Your task to perform on an android device: all mails in gmail Image 0: 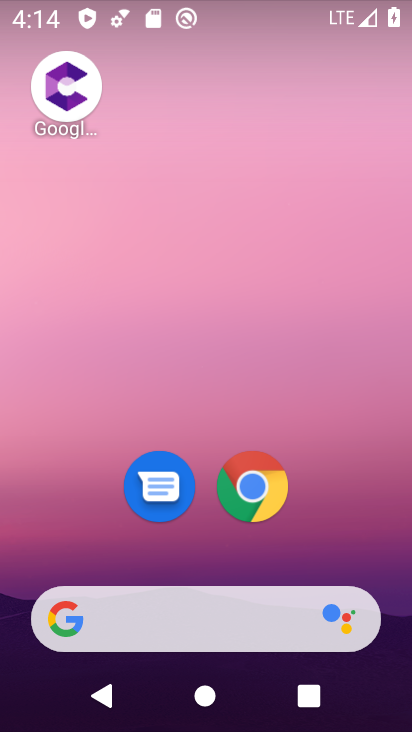
Step 0: drag from (391, 659) to (396, 90)
Your task to perform on an android device: all mails in gmail Image 1: 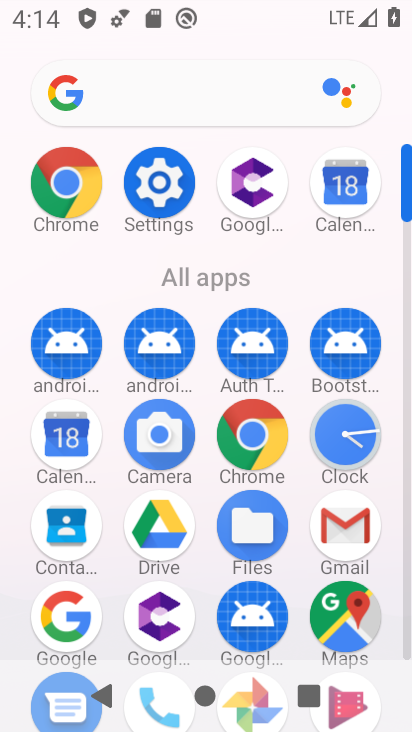
Step 1: click (334, 520)
Your task to perform on an android device: all mails in gmail Image 2: 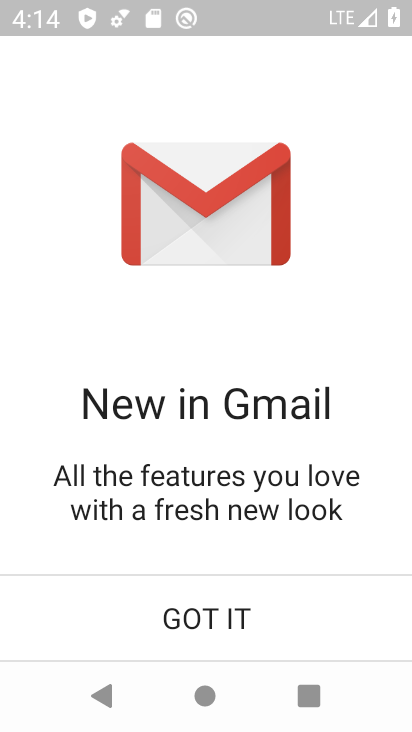
Step 2: click (208, 622)
Your task to perform on an android device: all mails in gmail Image 3: 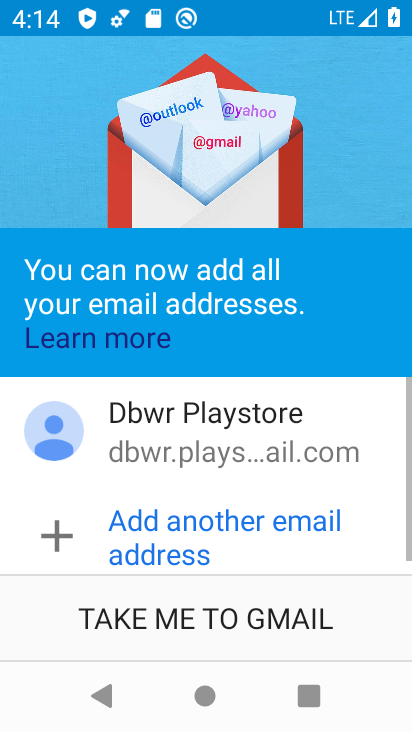
Step 3: click (305, 618)
Your task to perform on an android device: all mails in gmail Image 4: 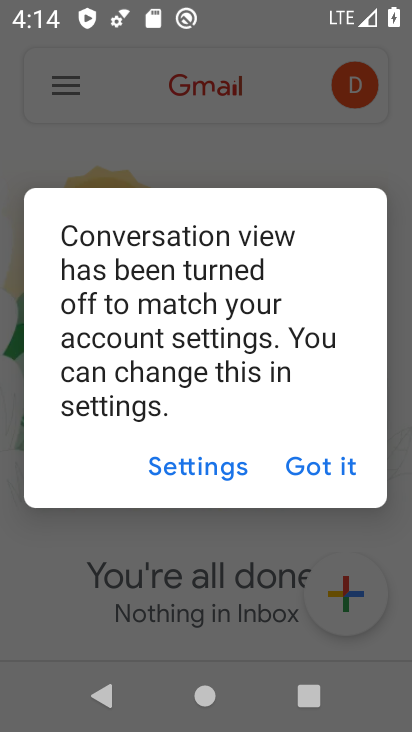
Step 4: click (329, 472)
Your task to perform on an android device: all mails in gmail Image 5: 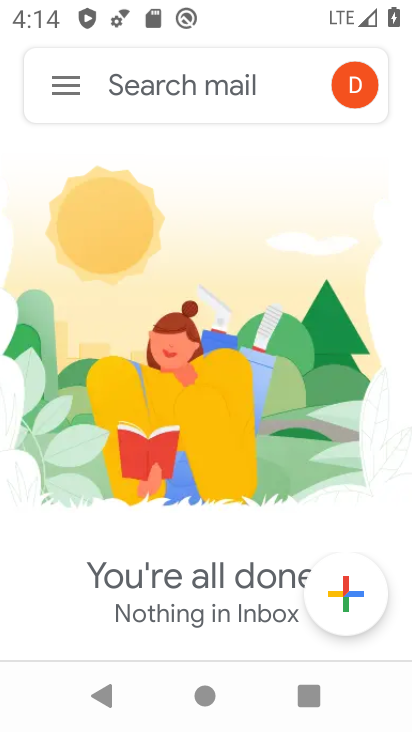
Step 5: click (59, 87)
Your task to perform on an android device: all mails in gmail Image 6: 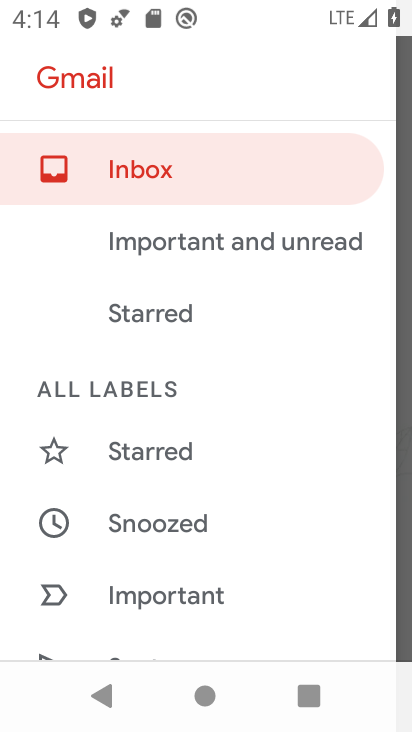
Step 6: drag from (316, 600) to (290, 254)
Your task to perform on an android device: all mails in gmail Image 7: 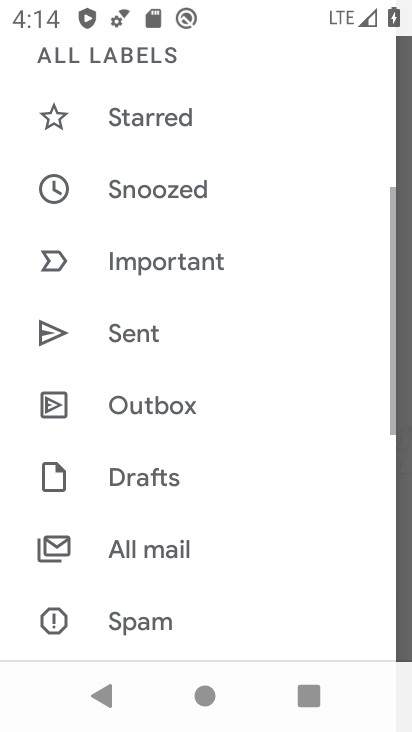
Step 7: click (128, 551)
Your task to perform on an android device: all mails in gmail Image 8: 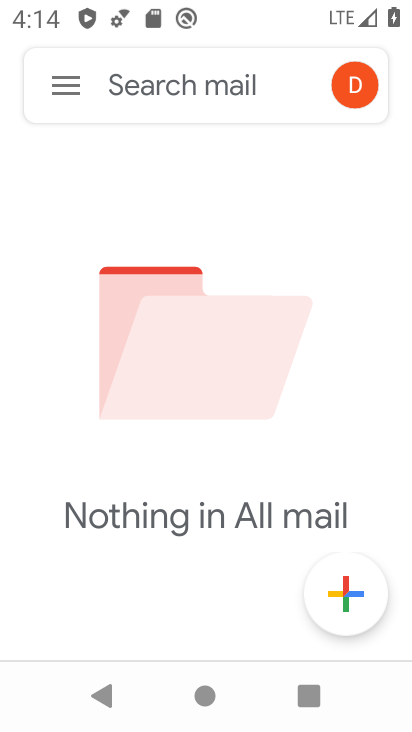
Step 8: task complete